Your task to perform on an android device: add a contact in the contacts app Image 0: 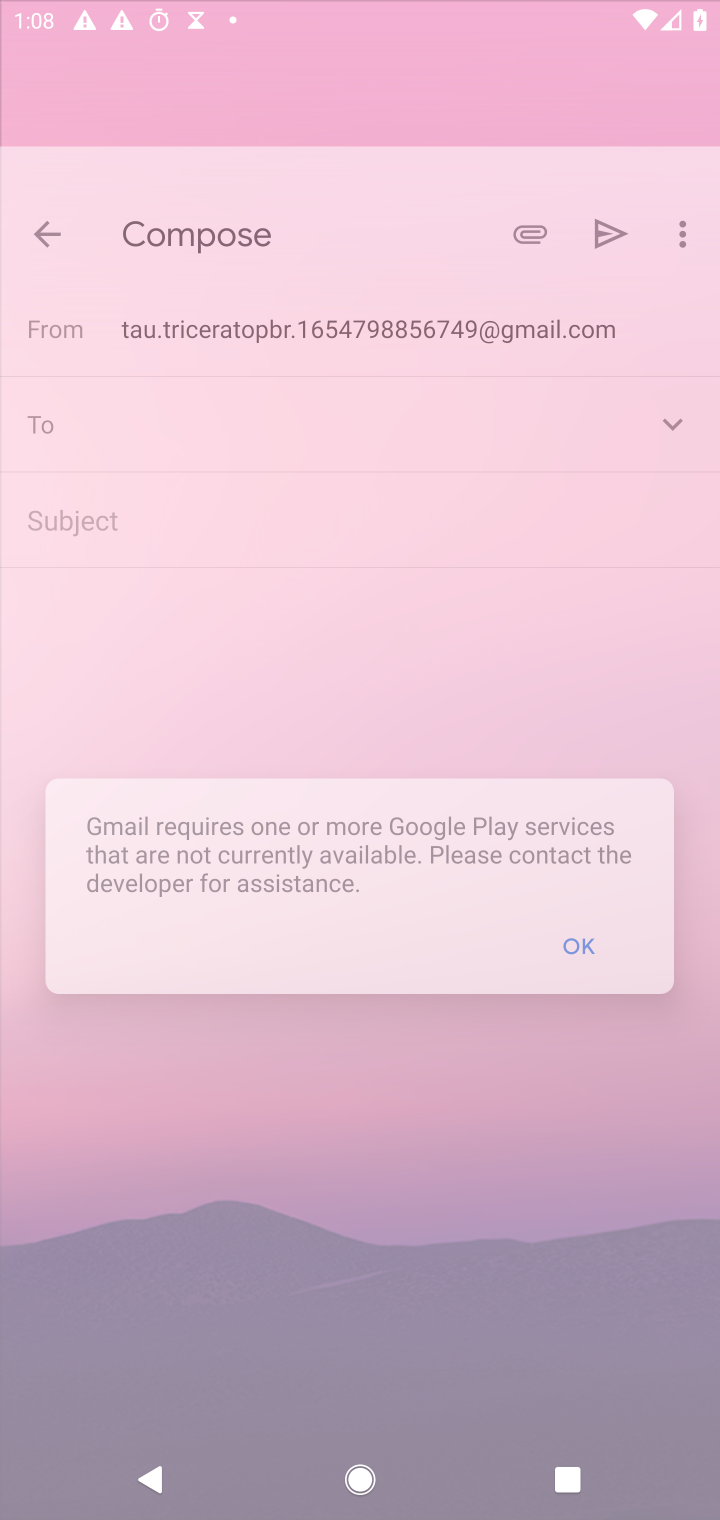
Step 0: press home button
Your task to perform on an android device: add a contact in the contacts app Image 1: 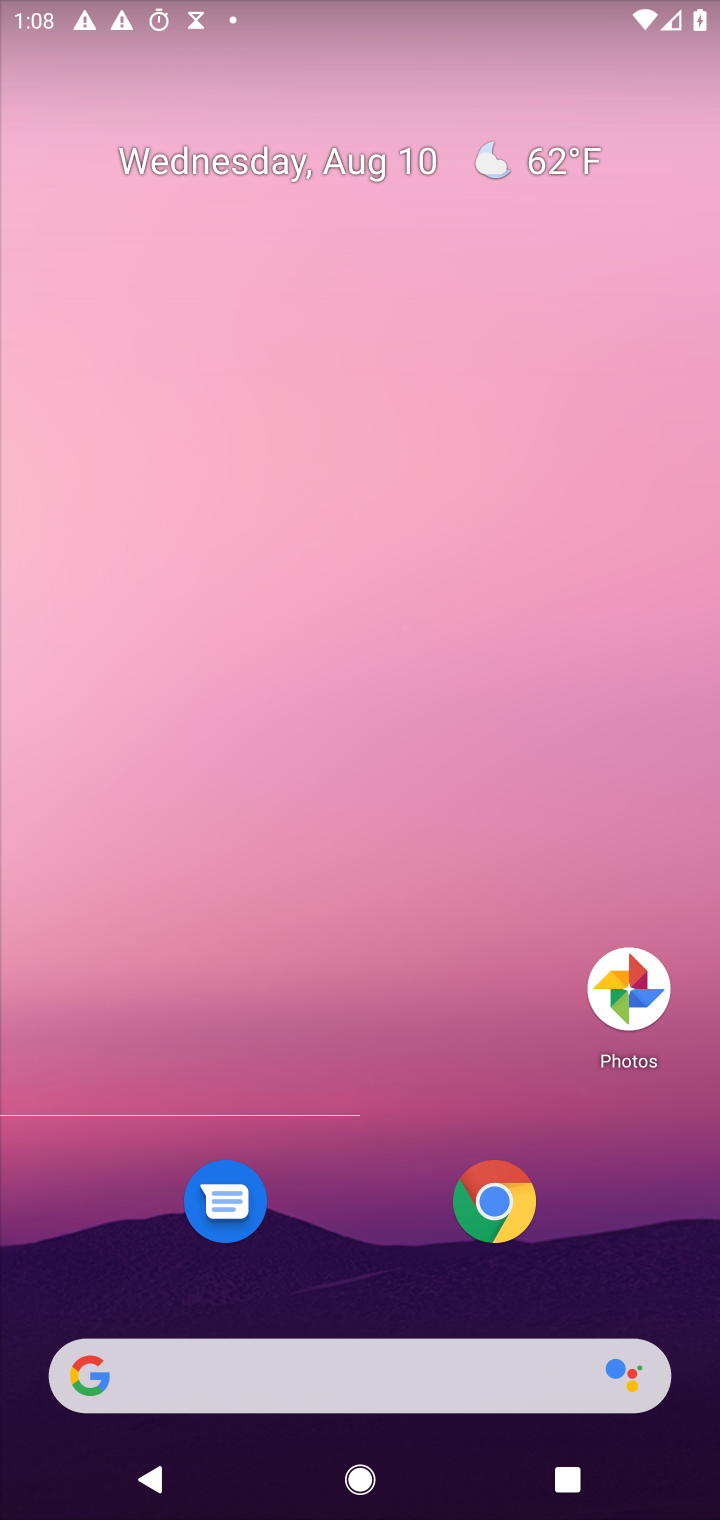
Step 1: drag from (359, 881) to (388, 210)
Your task to perform on an android device: add a contact in the contacts app Image 2: 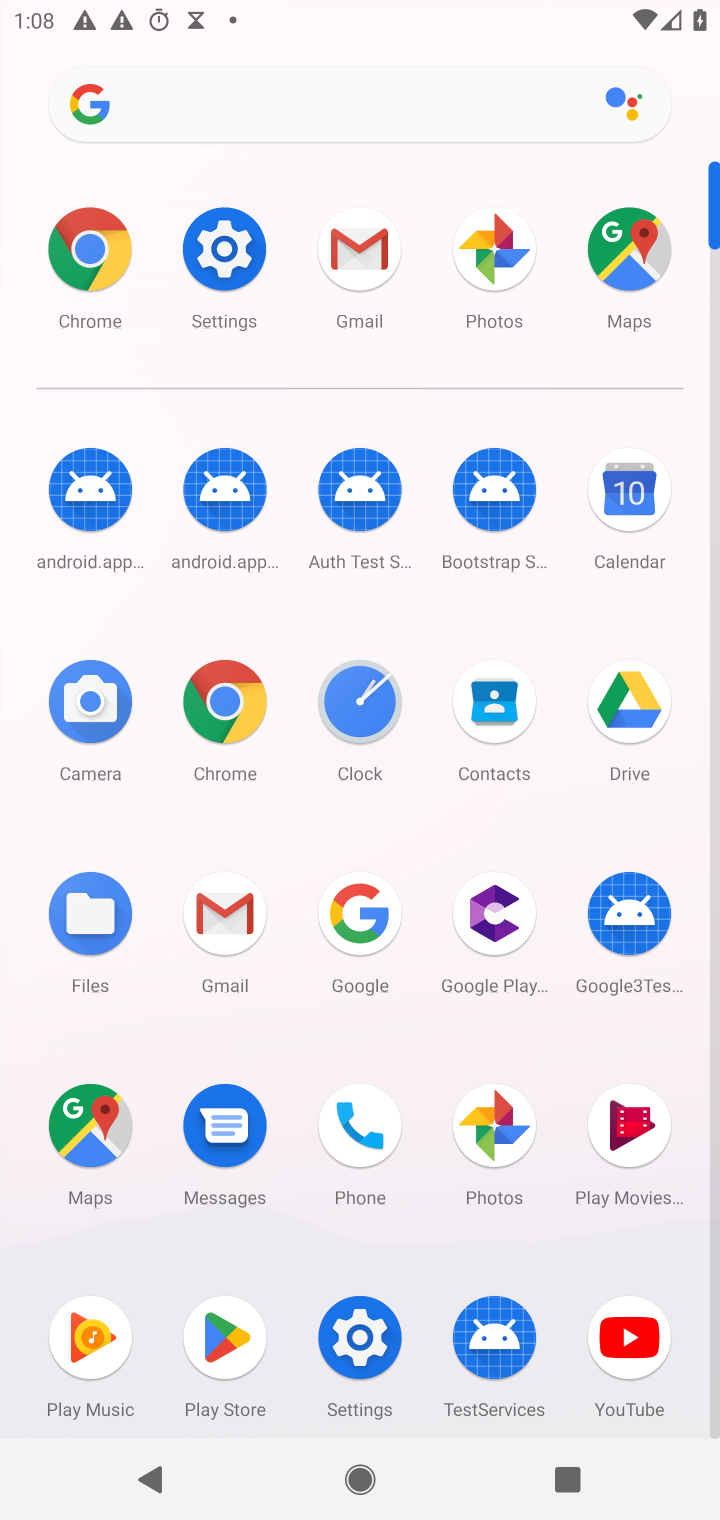
Step 2: click (503, 686)
Your task to perform on an android device: add a contact in the contacts app Image 3: 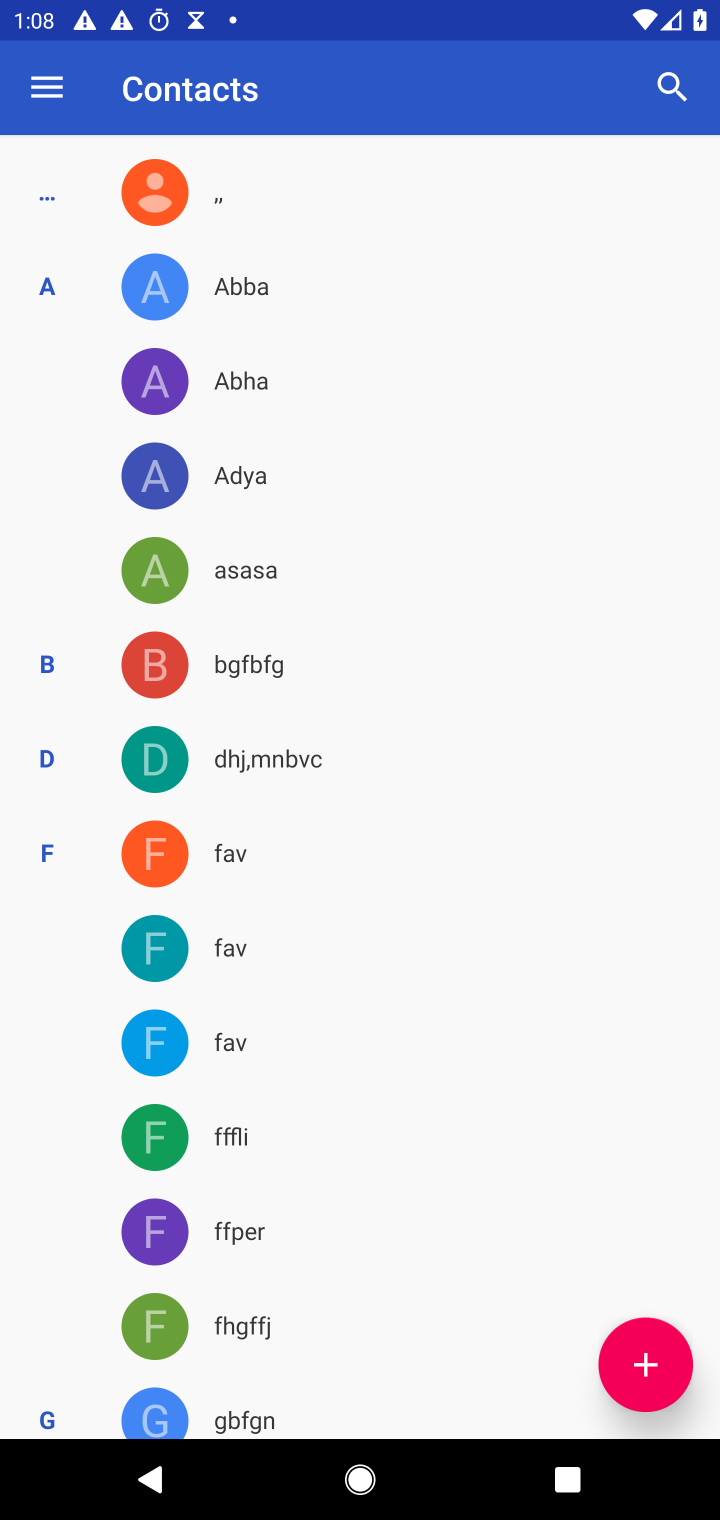
Step 3: click (636, 1391)
Your task to perform on an android device: add a contact in the contacts app Image 4: 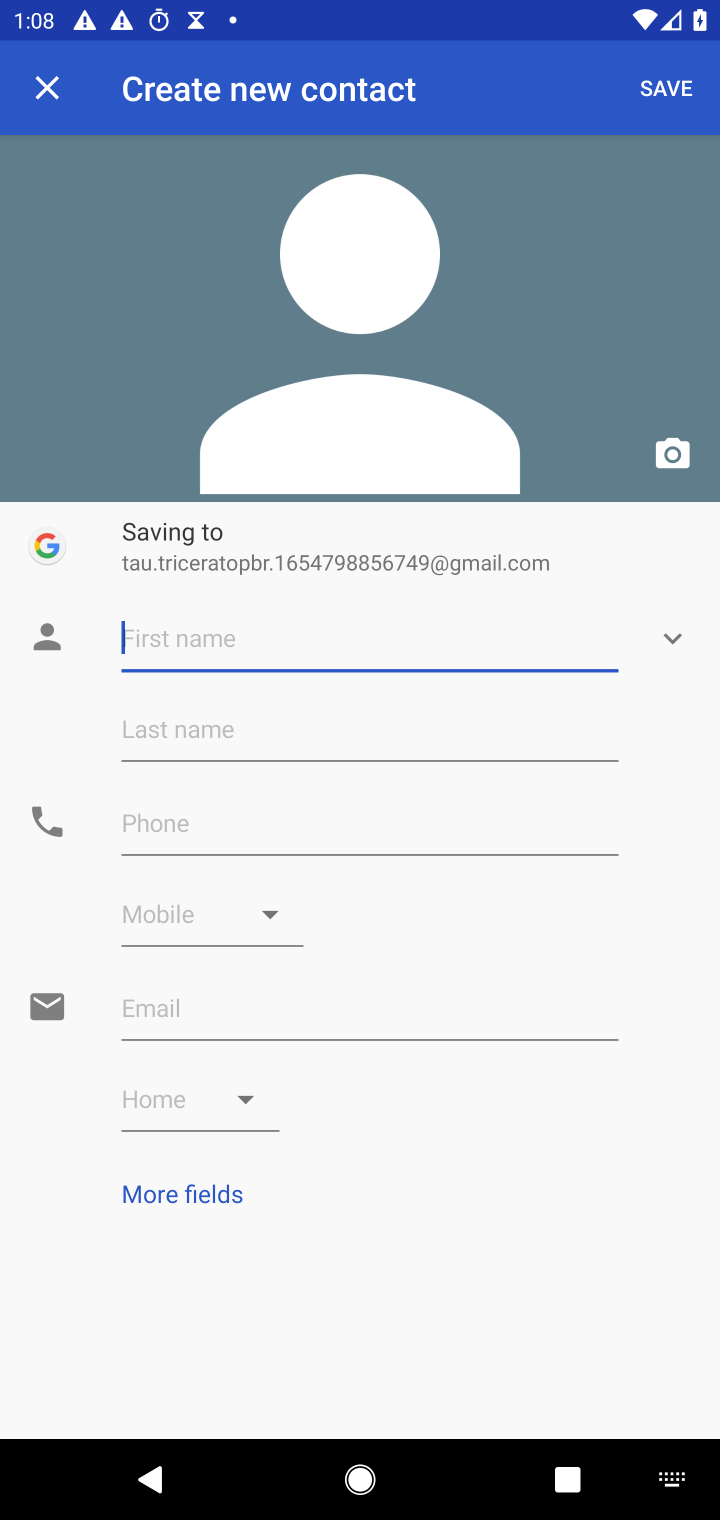
Step 4: type " sddsffsdfdafda"
Your task to perform on an android device: add a contact in the contacts app Image 5: 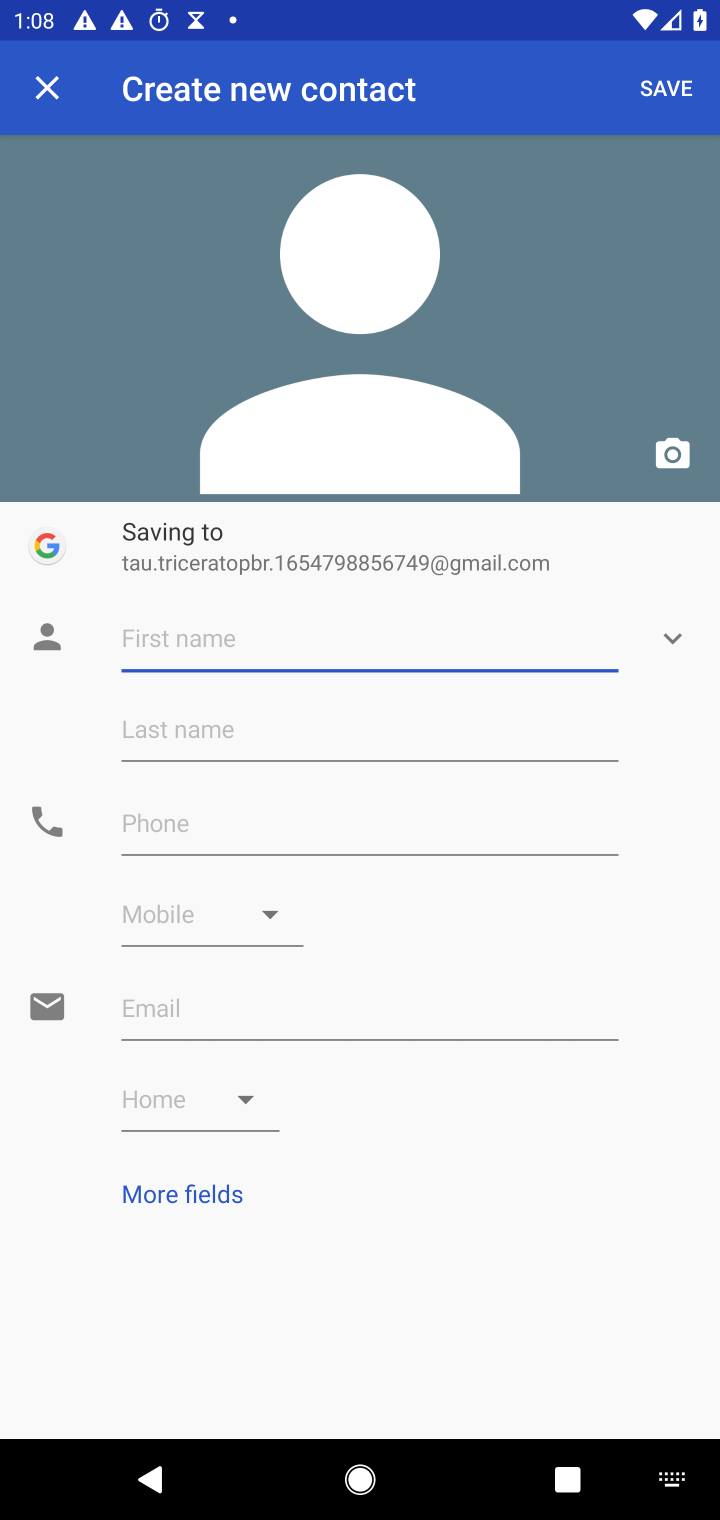
Step 5: click (218, 650)
Your task to perform on an android device: add a contact in the contacts app Image 6: 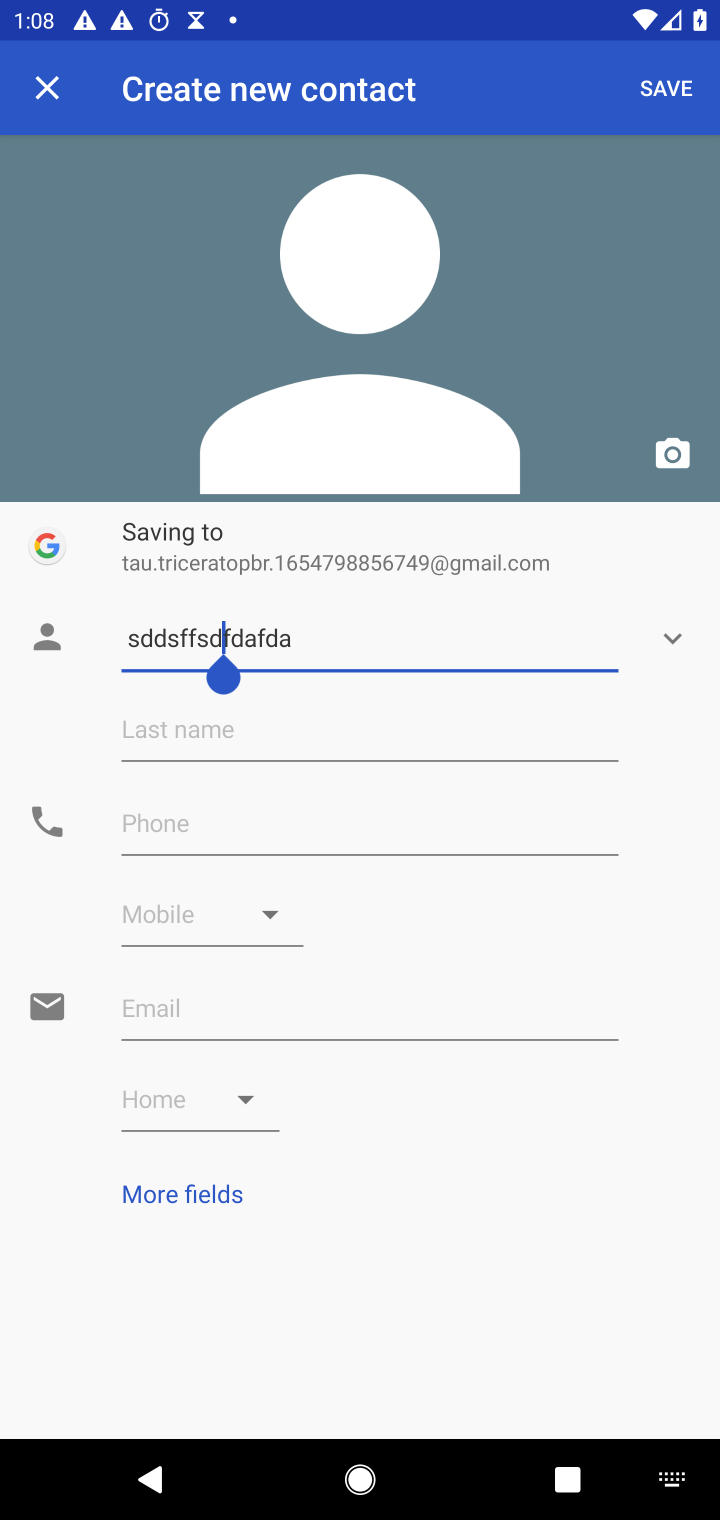
Step 6: click (244, 827)
Your task to perform on an android device: add a contact in the contacts app Image 7: 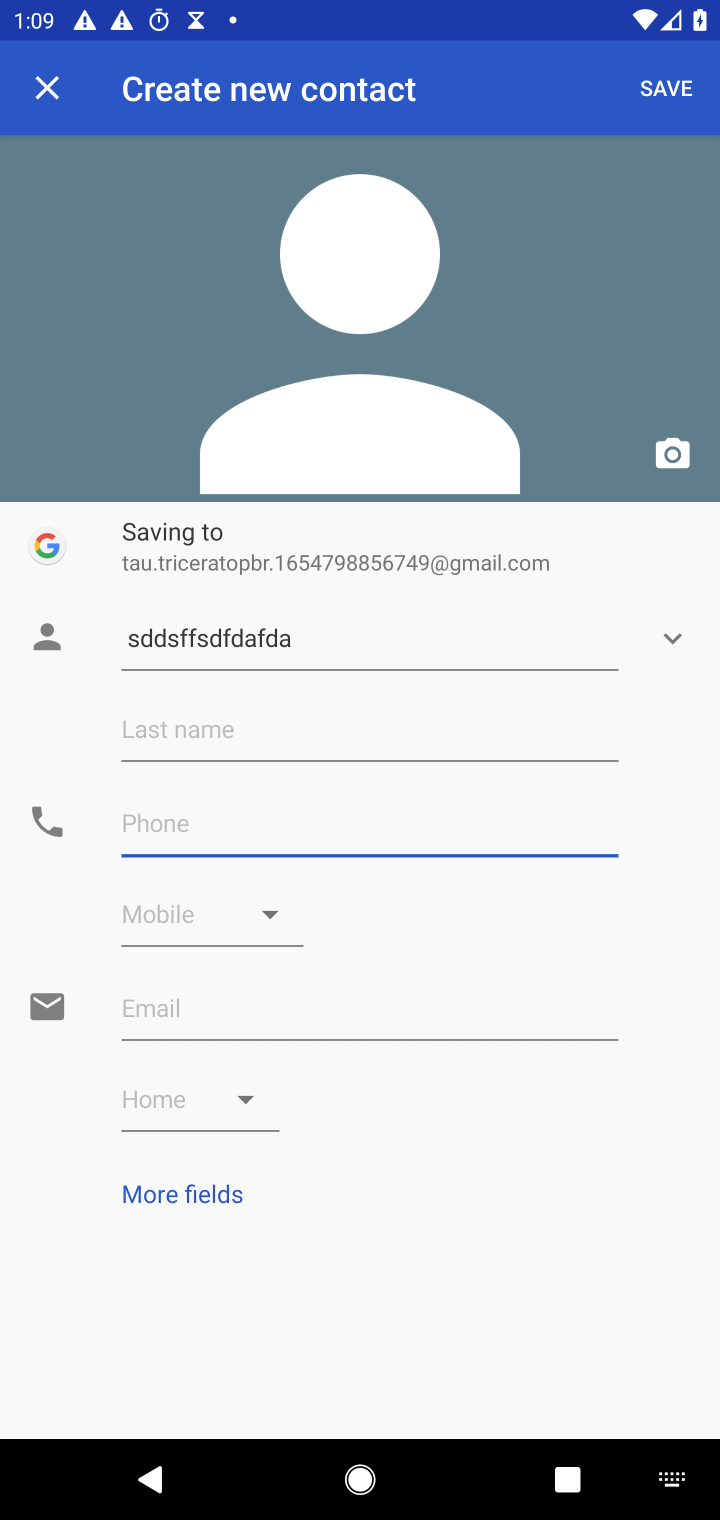
Step 7: type "3646363436"
Your task to perform on an android device: add a contact in the contacts app Image 8: 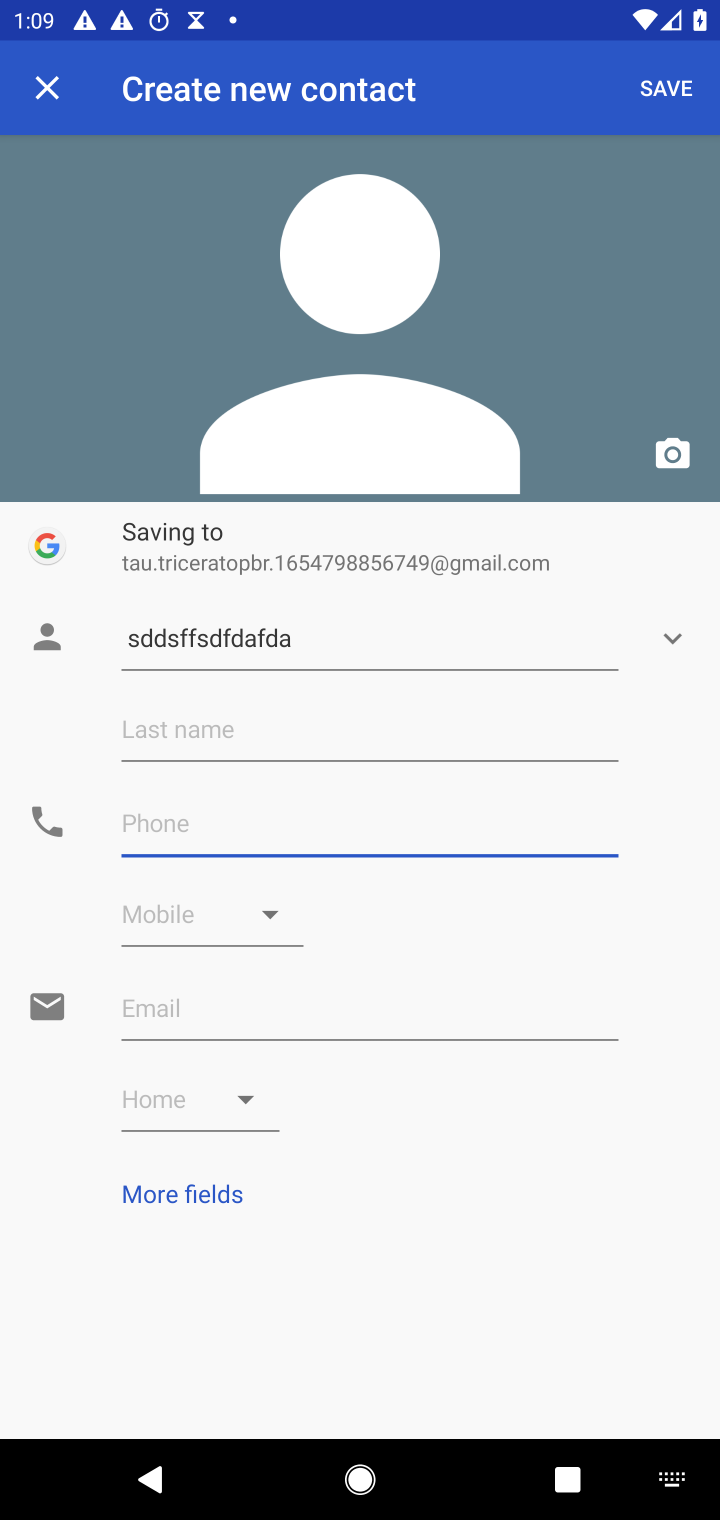
Step 8: click (139, 832)
Your task to perform on an android device: add a contact in the contacts app Image 9: 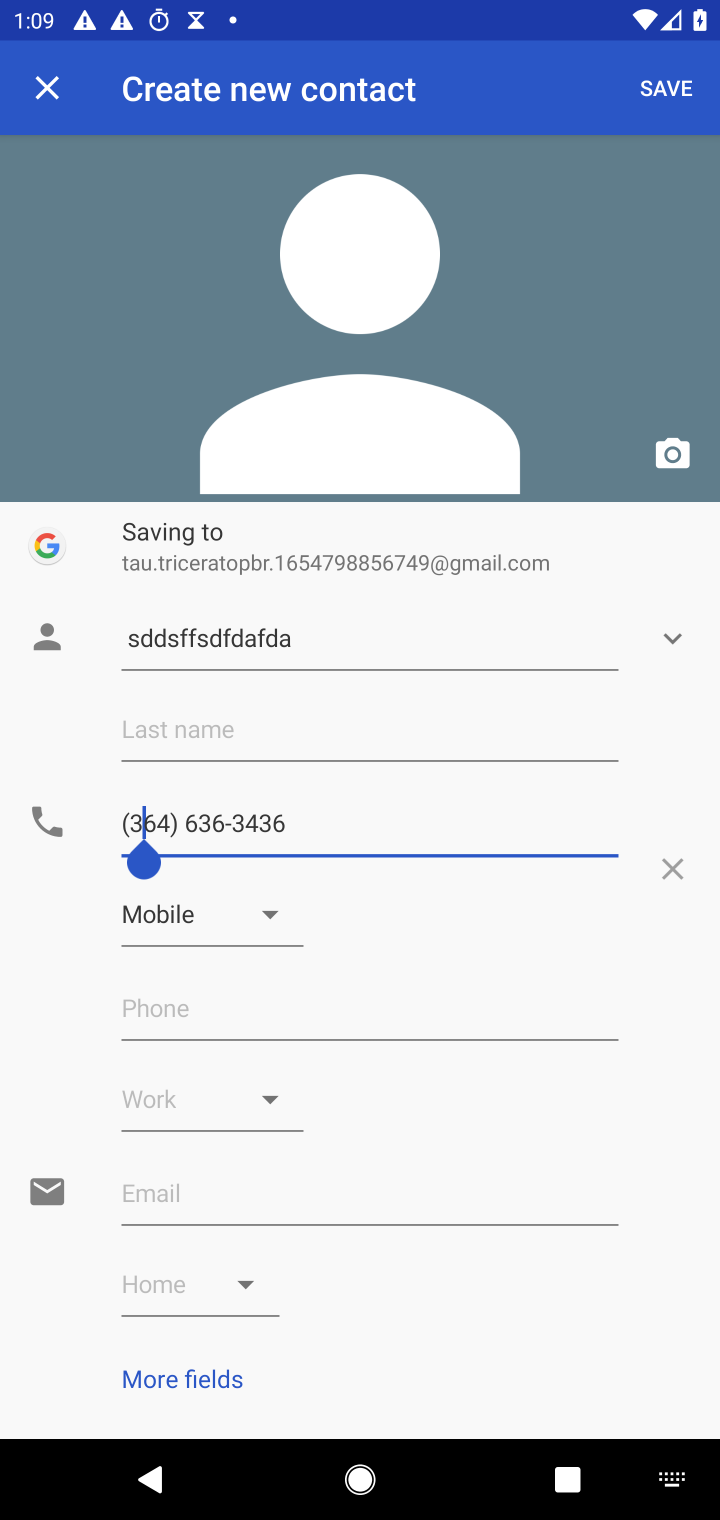
Step 9: click (673, 96)
Your task to perform on an android device: add a contact in the contacts app Image 10: 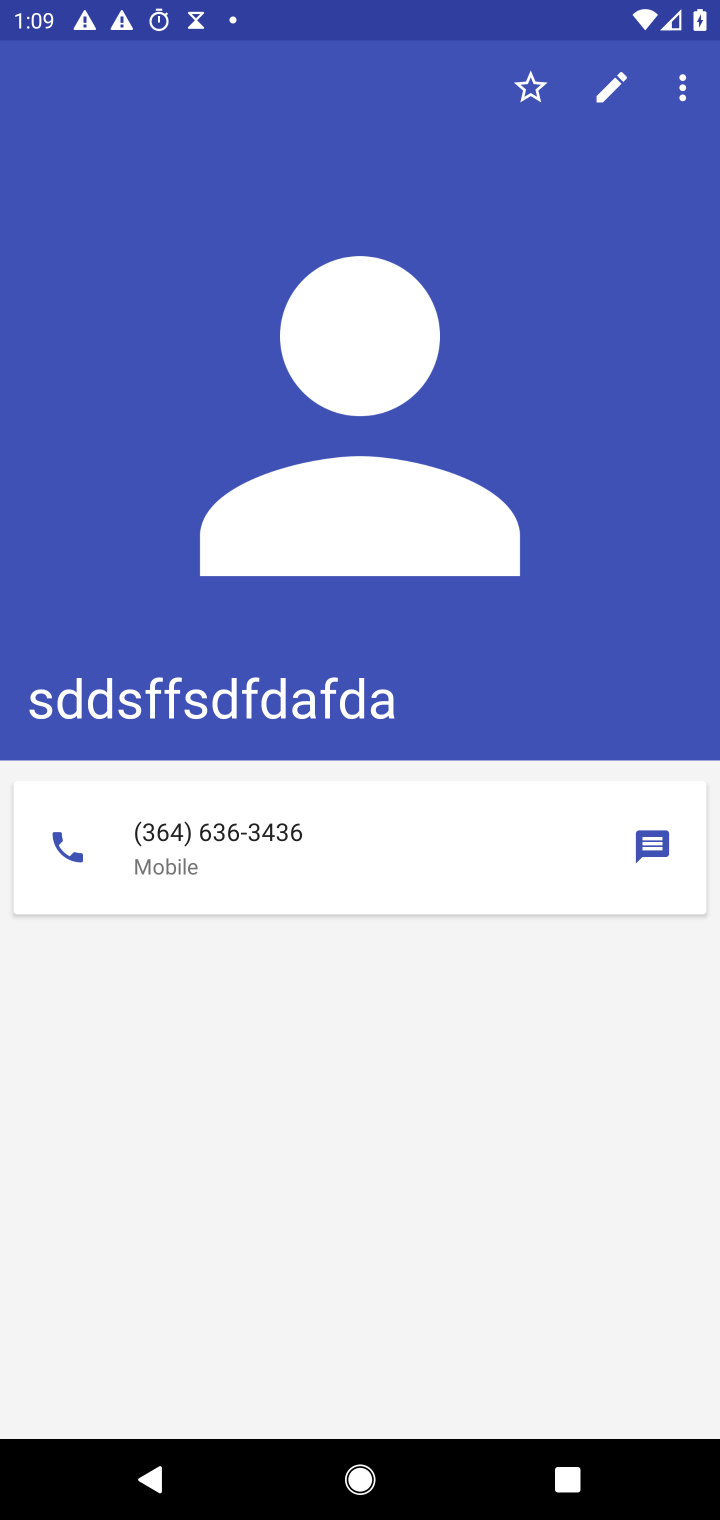
Step 10: task complete